Your task to perform on an android device: Search for sushi restaurants on Maps Image 0: 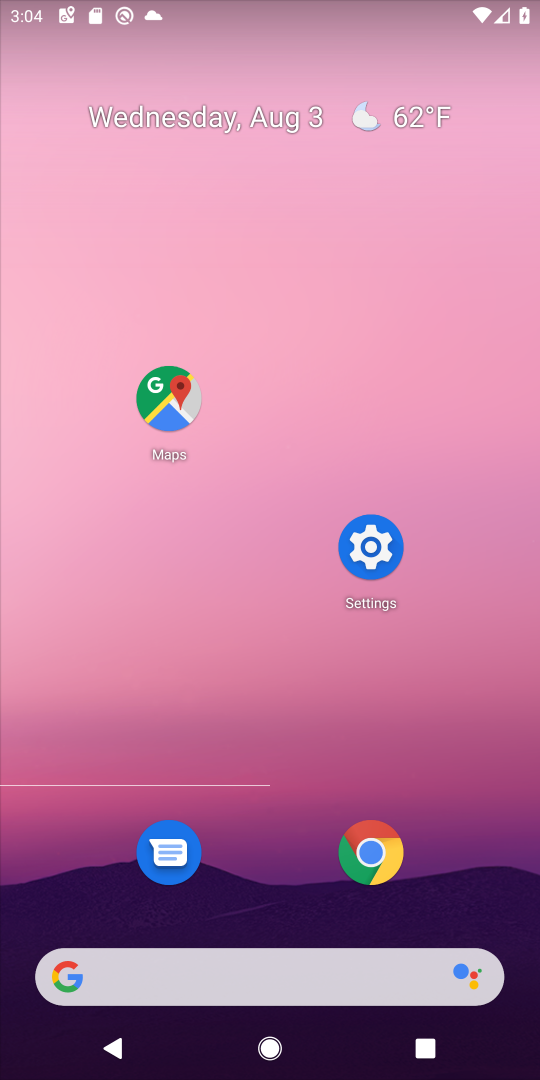
Step 0: click (173, 404)
Your task to perform on an android device: Search for sushi restaurants on Maps Image 1: 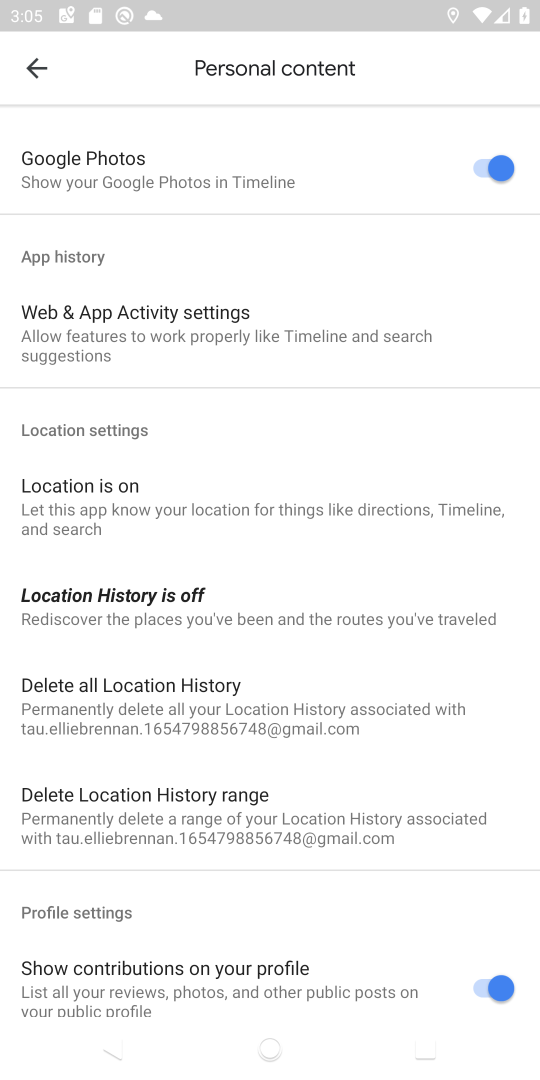
Step 1: click (32, 62)
Your task to perform on an android device: Search for sushi restaurants on Maps Image 2: 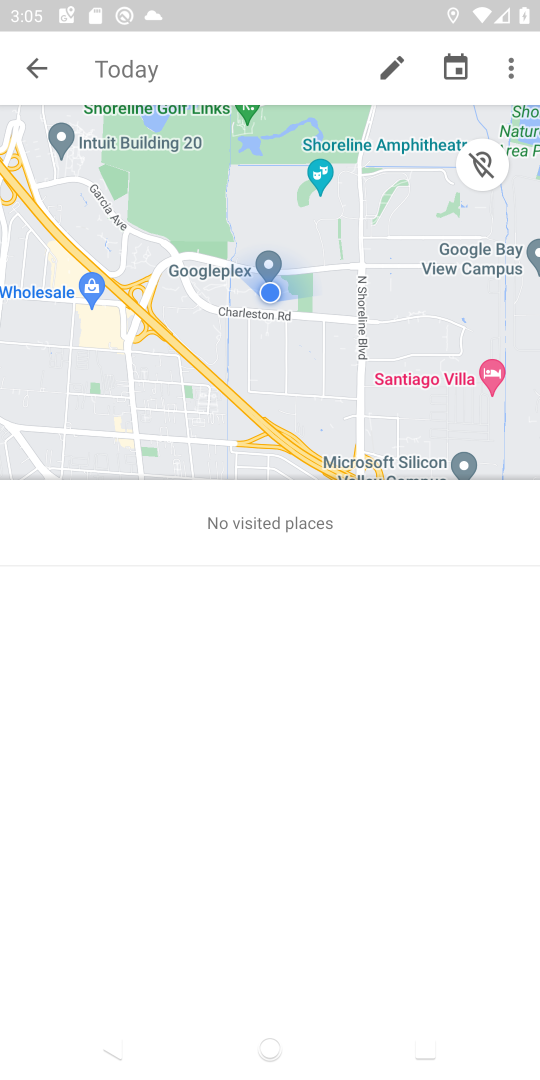
Step 2: click (36, 68)
Your task to perform on an android device: Search for sushi restaurants on Maps Image 3: 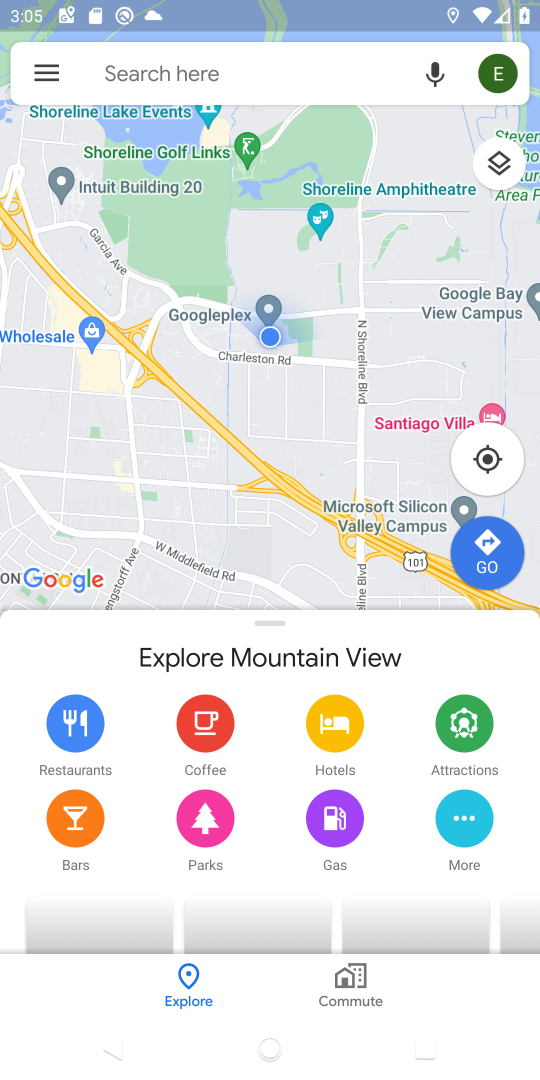
Step 3: click (213, 71)
Your task to perform on an android device: Search for sushi restaurants on Maps Image 4: 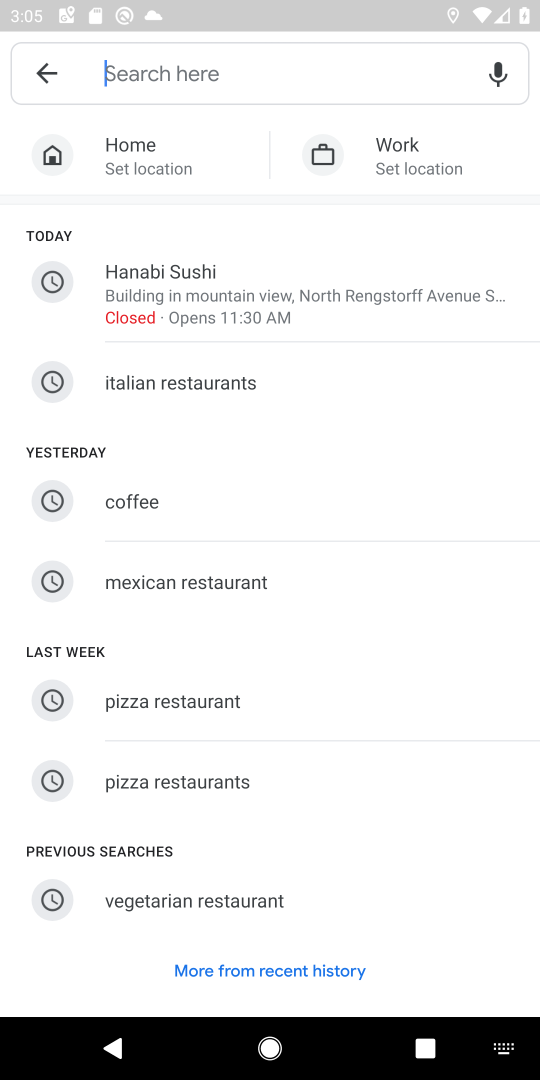
Step 4: drag from (319, 807) to (441, 315)
Your task to perform on an android device: Search for sushi restaurants on Maps Image 5: 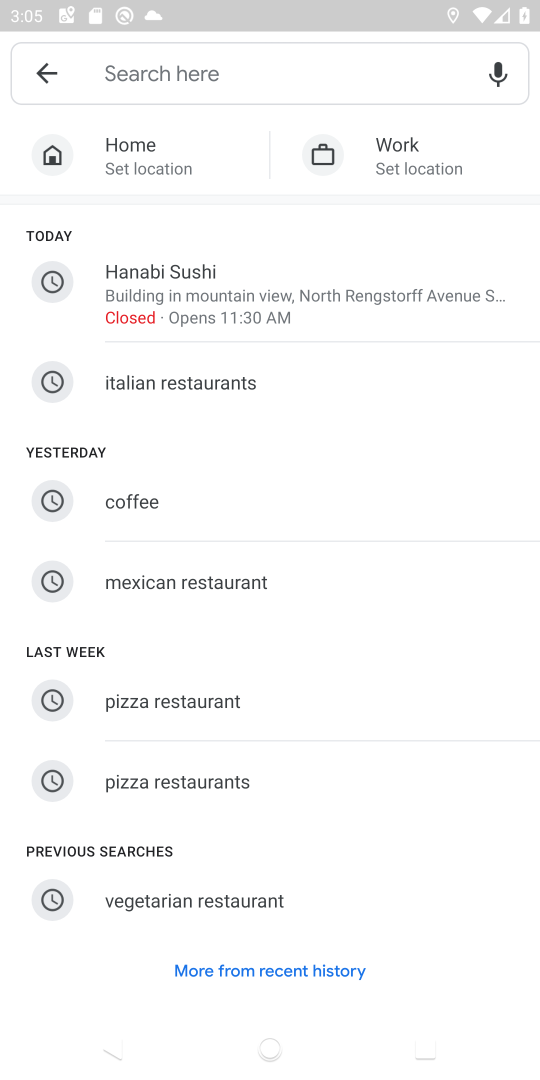
Step 5: click (192, 66)
Your task to perform on an android device: Search for sushi restaurants on Maps Image 6: 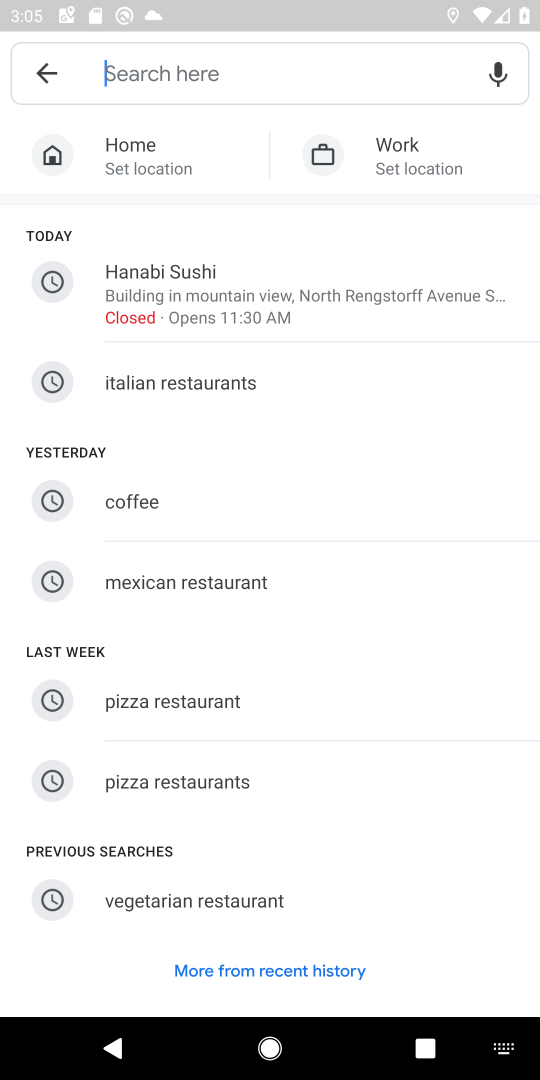
Step 6: type "sushi restaurants"
Your task to perform on an android device: Search for sushi restaurants on Maps Image 7: 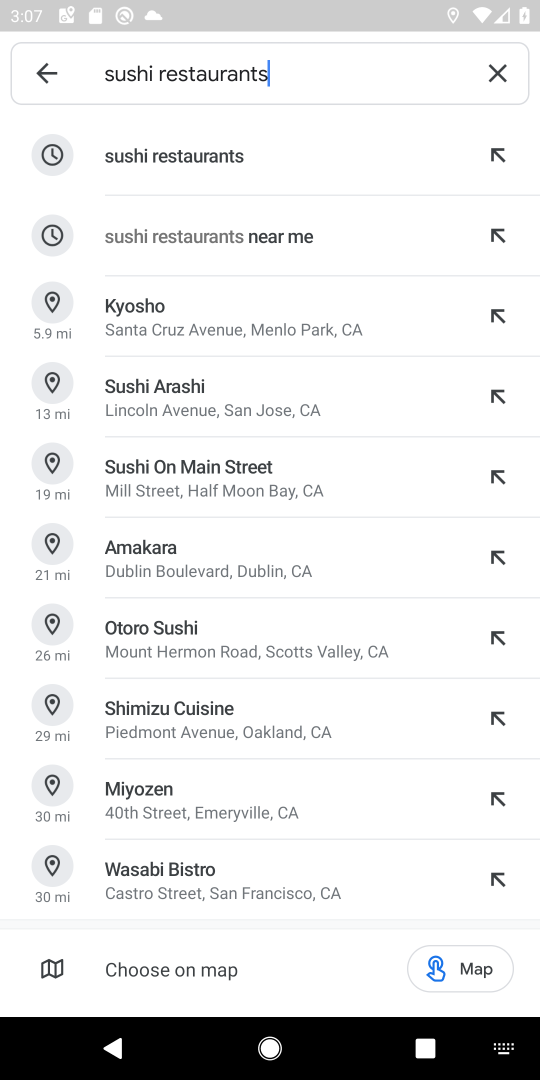
Step 7: click (127, 146)
Your task to perform on an android device: Search for sushi restaurants on Maps Image 8: 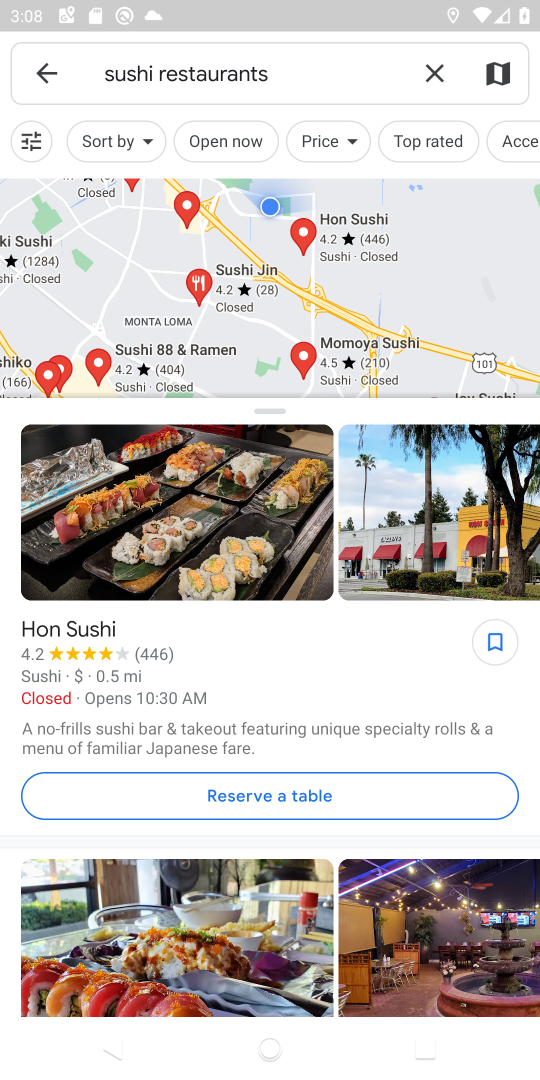
Step 8: task complete